Your task to perform on an android device: Search for pizza restaurants on Maps Image 0: 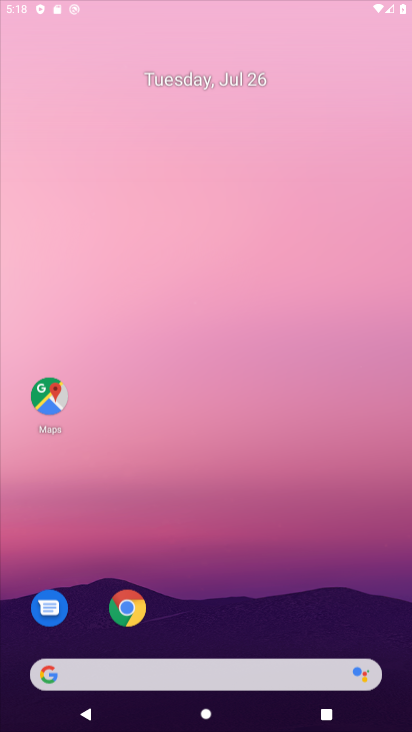
Step 0: press home button
Your task to perform on an android device: Search for pizza restaurants on Maps Image 1: 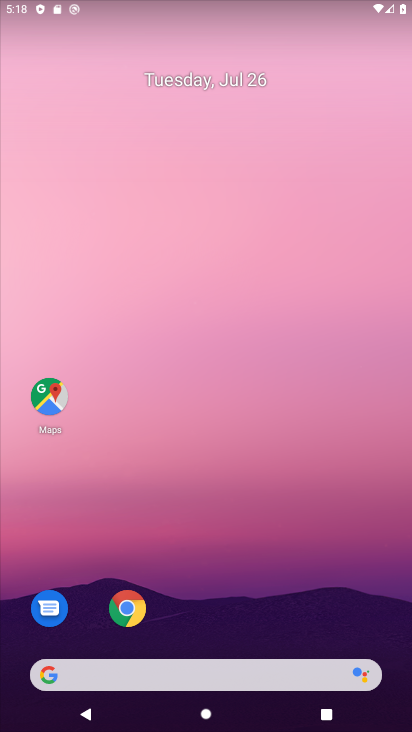
Step 1: drag from (231, 636) to (263, 162)
Your task to perform on an android device: Search for pizza restaurants on Maps Image 2: 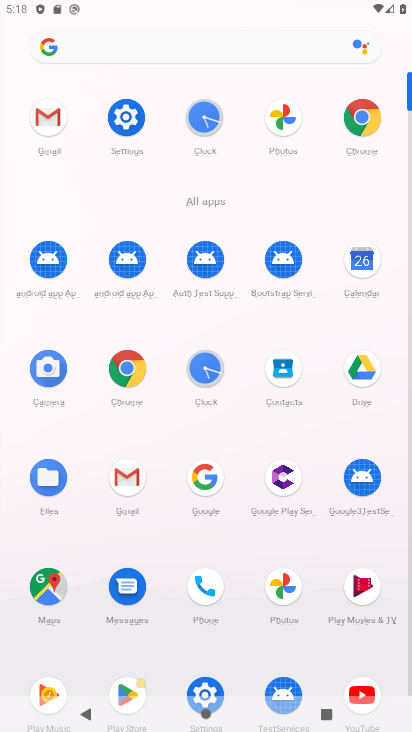
Step 2: click (43, 588)
Your task to perform on an android device: Search for pizza restaurants on Maps Image 3: 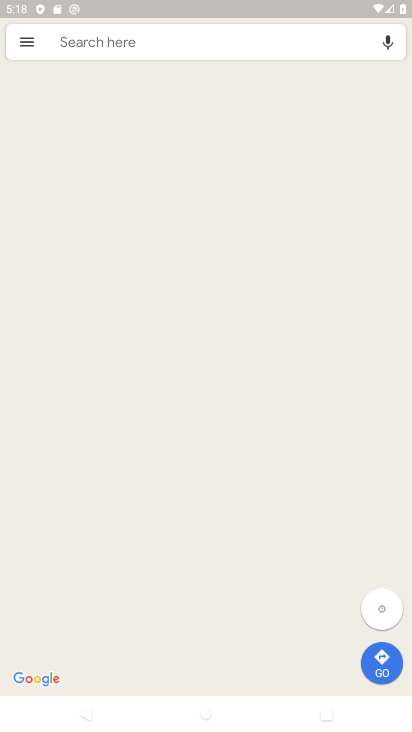
Step 3: click (157, 40)
Your task to perform on an android device: Search for pizza restaurants on Maps Image 4: 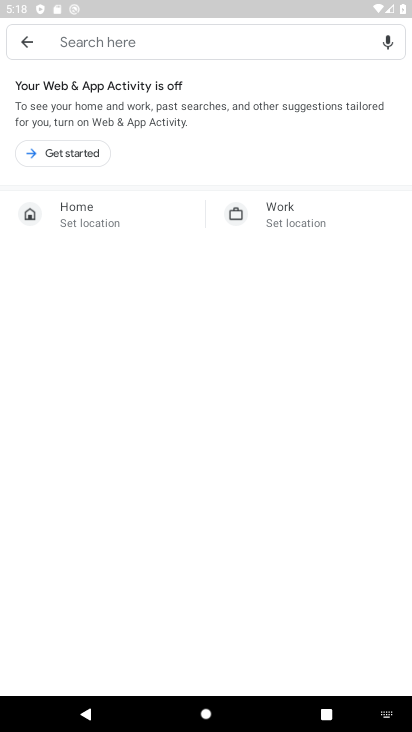
Step 4: click (73, 152)
Your task to perform on an android device: Search for pizza restaurants on Maps Image 5: 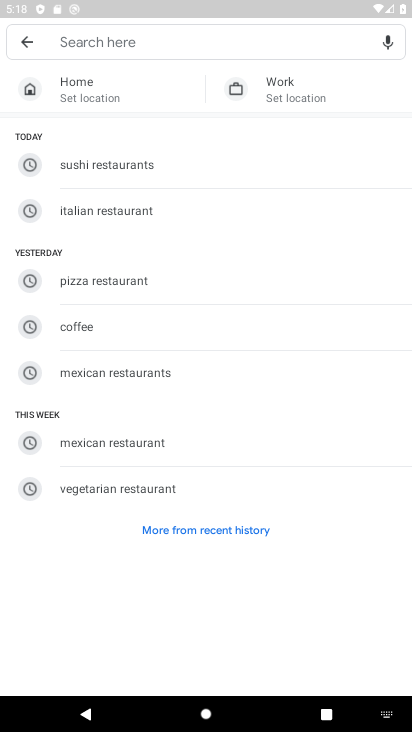
Step 5: click (105, 278)
Your task to perform on an android device: Search for pizza restaurants on Maps Image 6: 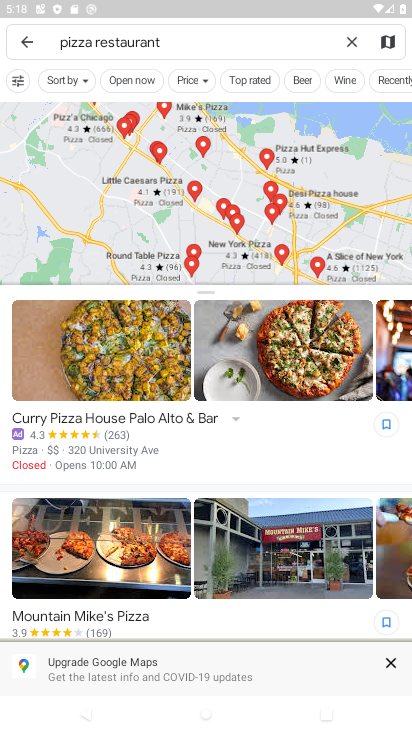
Step 6: task complete